Your task to perform on an android device: Open battery settings Image 0: 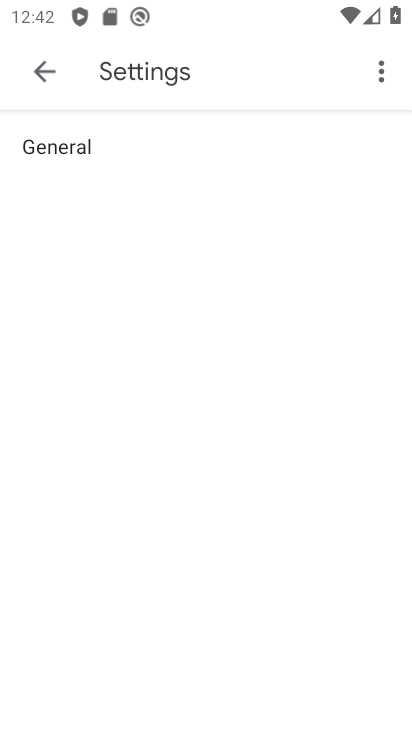
Step 0: press home button
Your task to perform on an android device: Open battery settings Image 1: 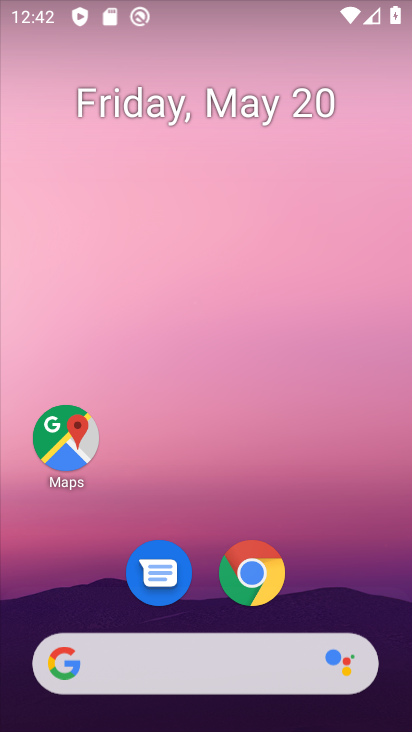
Step 1: drag from (200, 723) to (207, 117)
Your task to perform on an android device: Open battery settings Image 2: 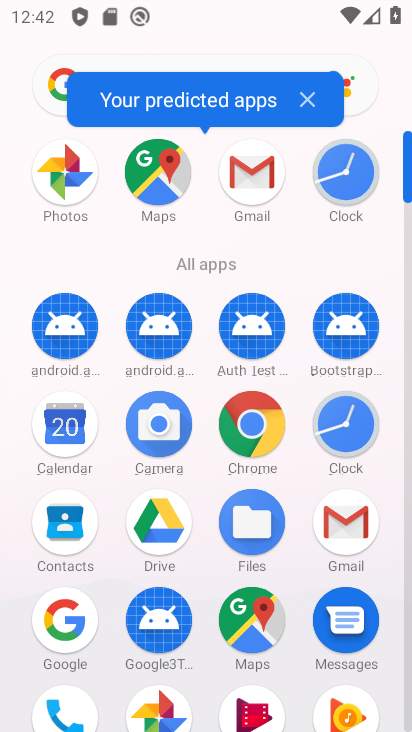
Step 2: drag from (197, 685) to (202, 287)
Your task to perform on an android device: Open battery settings Image 3: 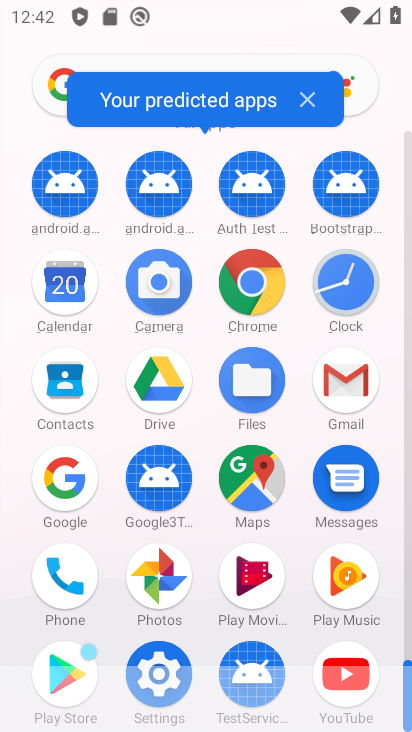
Step 3: click (150, 659)
Your task to perform on an android device: Open battery settings Image 4: 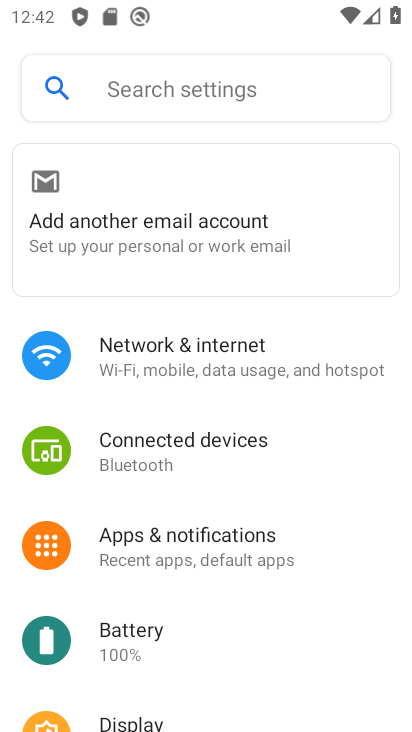
Step 4: click (131, 635)
Your task to perform on an android device: Open battery settings Image 5: 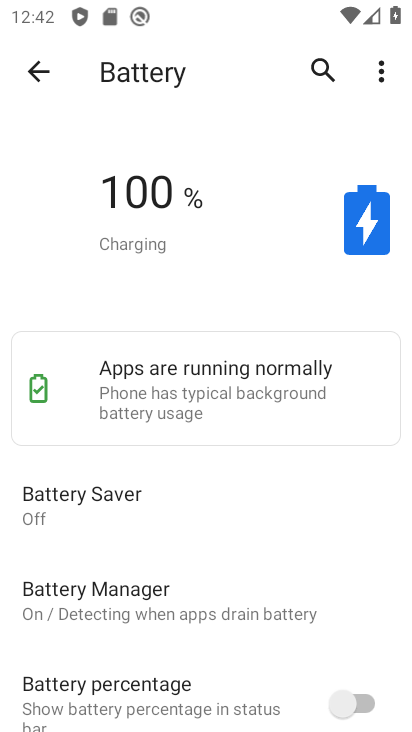
Step 5: task complete